Your task to perform on an android device: check android version Image 0: 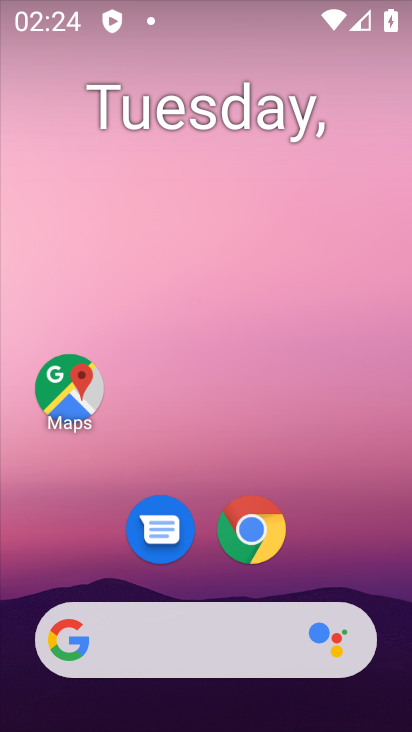
Step 0: drag from (332, 559) to (357, 0)
Your task to perform on an android device: check android version Image 1: 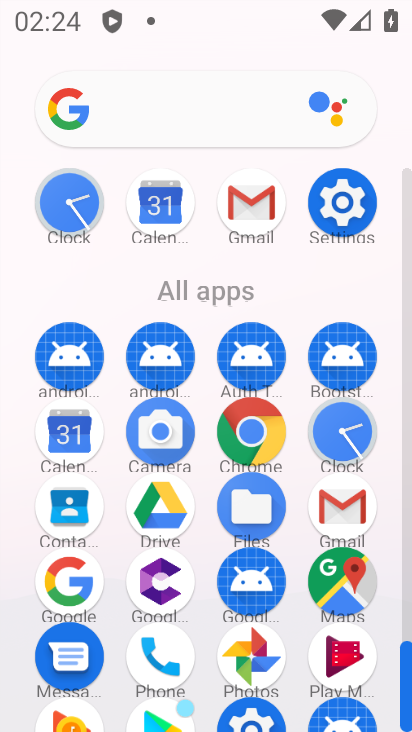
Step 1: click (338, 211)
Your task to perform on an android device: check android version Image 2: 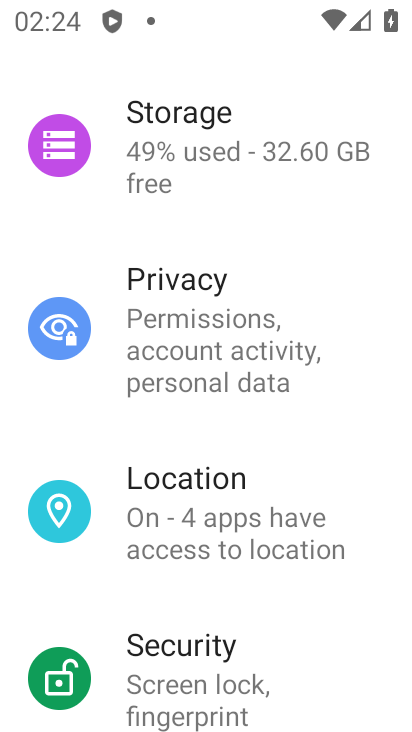
Step 2: drag from (214, 644) to (271, 100)
Your task to perform on an android device: check android version Image 3: 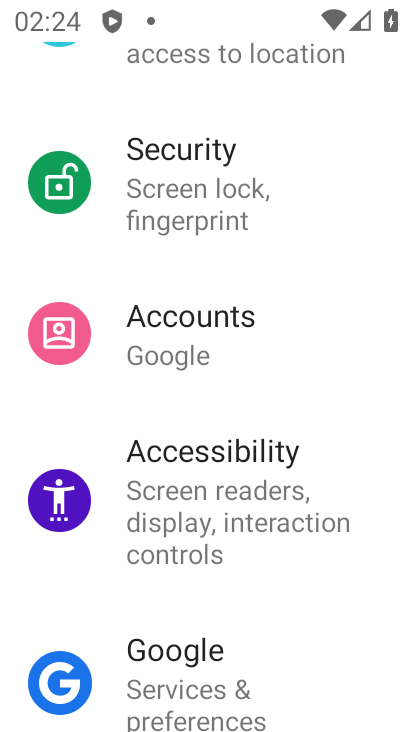
Step 3: drag from (235, 571) to (286, 40)
Your task to perform on an android device: check android version Image 4: 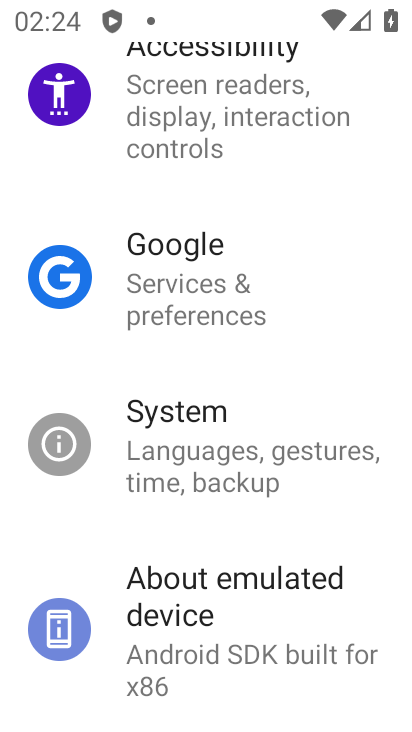
Step 4: drag from (207, 618) to (295, 169)
Your task to perform on an android device: check android version Image 5: 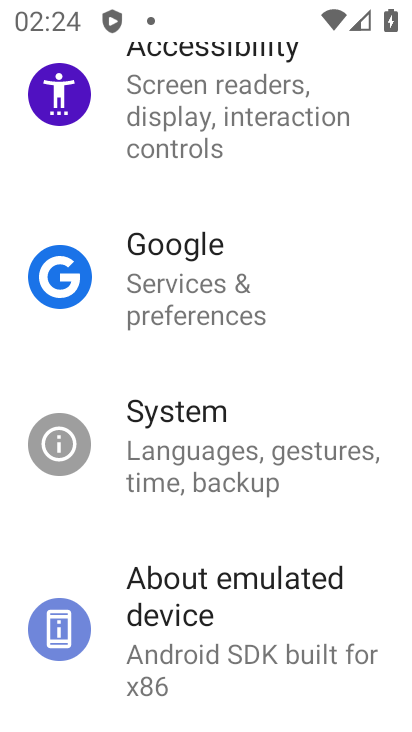
Step 5: click (203, 581)
Your task to perform on an android device: check android version Image 6: 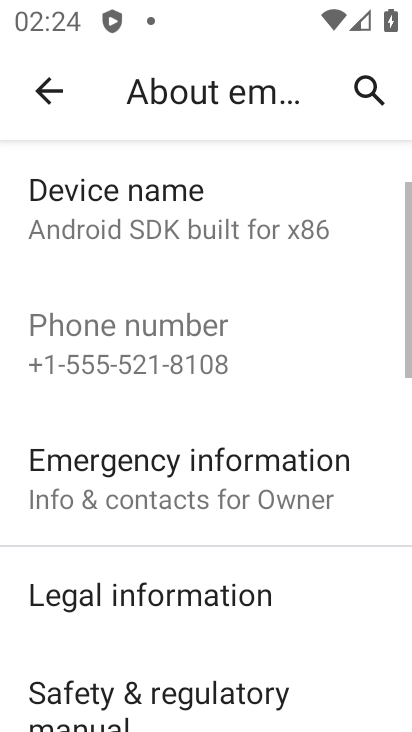
Step 6: drag from (199, 542) to (255, 91)
Your task to perform on an android device: check android version Image 7: 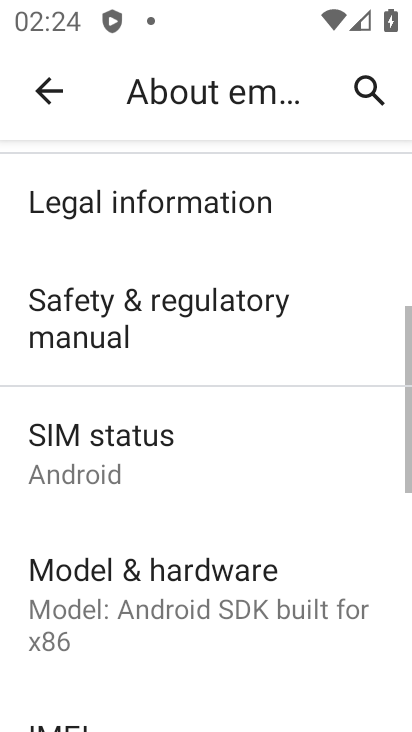
Step 7: drag from (164, 523) to (185, 256)
Your task to perform on an android device: check android version Image 8: 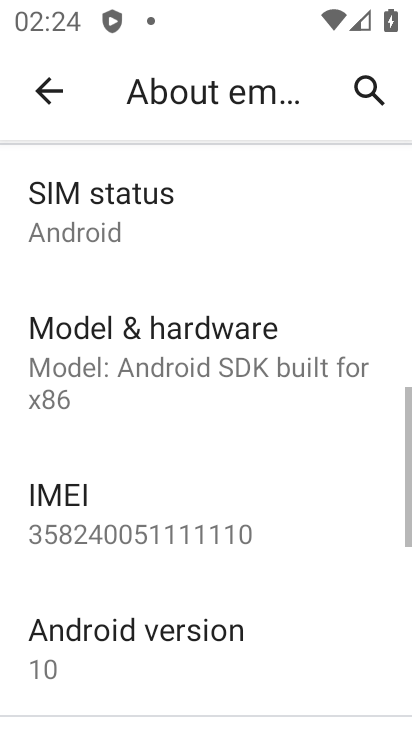
Step 8: click (182, 662)
Your task to perform on an android device: check android version Image 9: 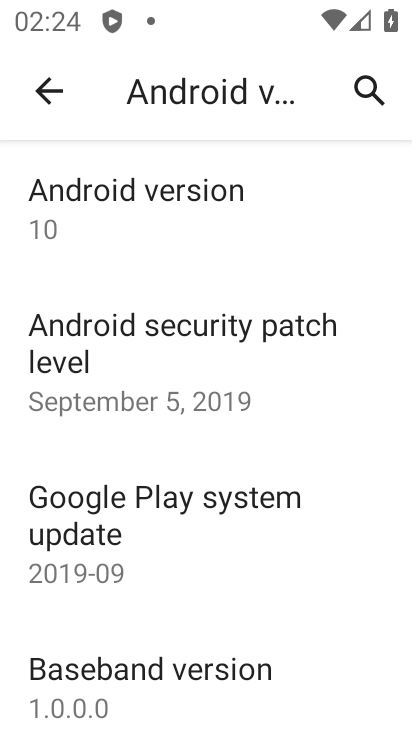
Step 9: task complete